Your task to perform on an android device: Open Maps and search for coffee Image 0: 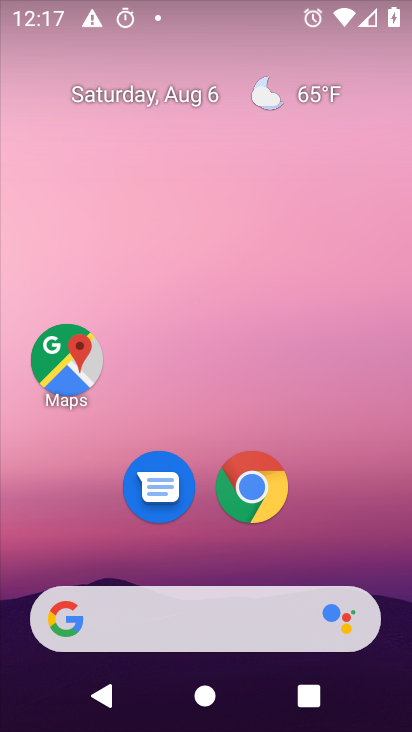
Step 0: click (62, 374)
Your task to perform on an android device: Open Maps and search for coffee Image 1: 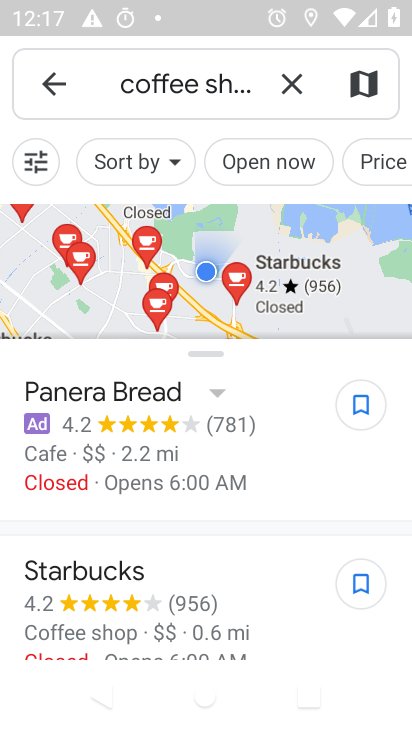
Step 1: task complete